Your task to perform on an android device: Empty the shopping cart on bestbuy.com. Add "duracell triple a" to the cart on bestbuy.com Image 0: 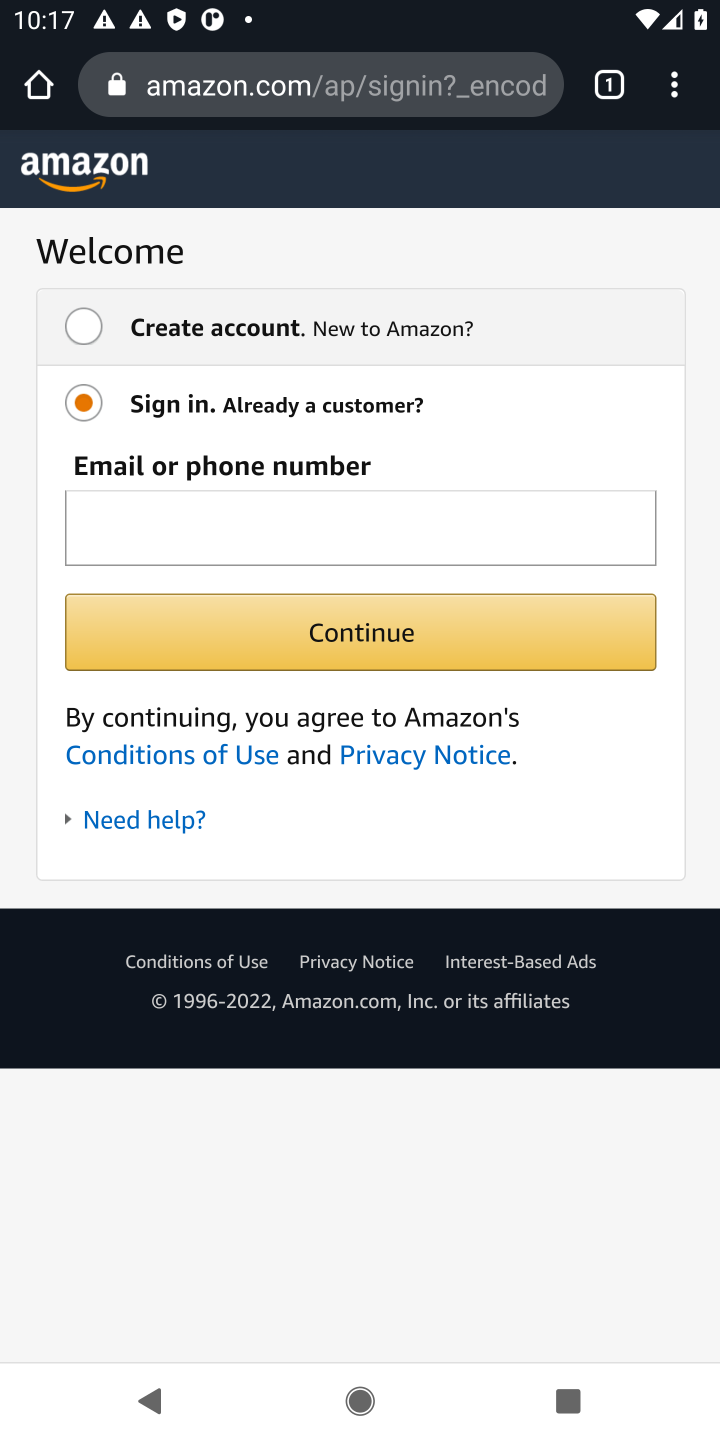
Step 0: click (302, 87)
Your task to perform on an android device: Empty the shopping cart on bestbuy.com. Add "duracell triple a" to the cart on bestbuy.com Image 1: 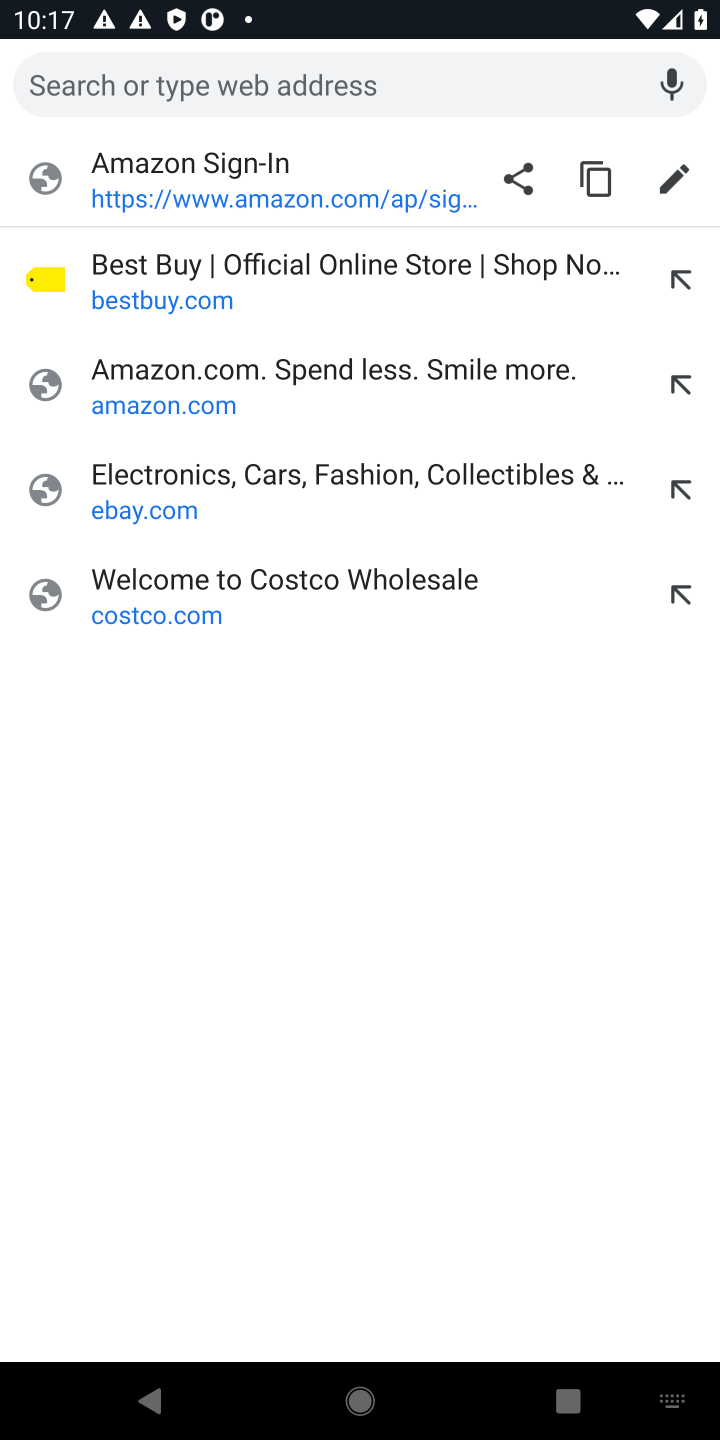
Step 1: click (145, 322)
Your task to perform on an android device: Empty the shopping cart on bestbuy.com. Add "duracell triple a" to the cart on bestbuy.com Image 2: 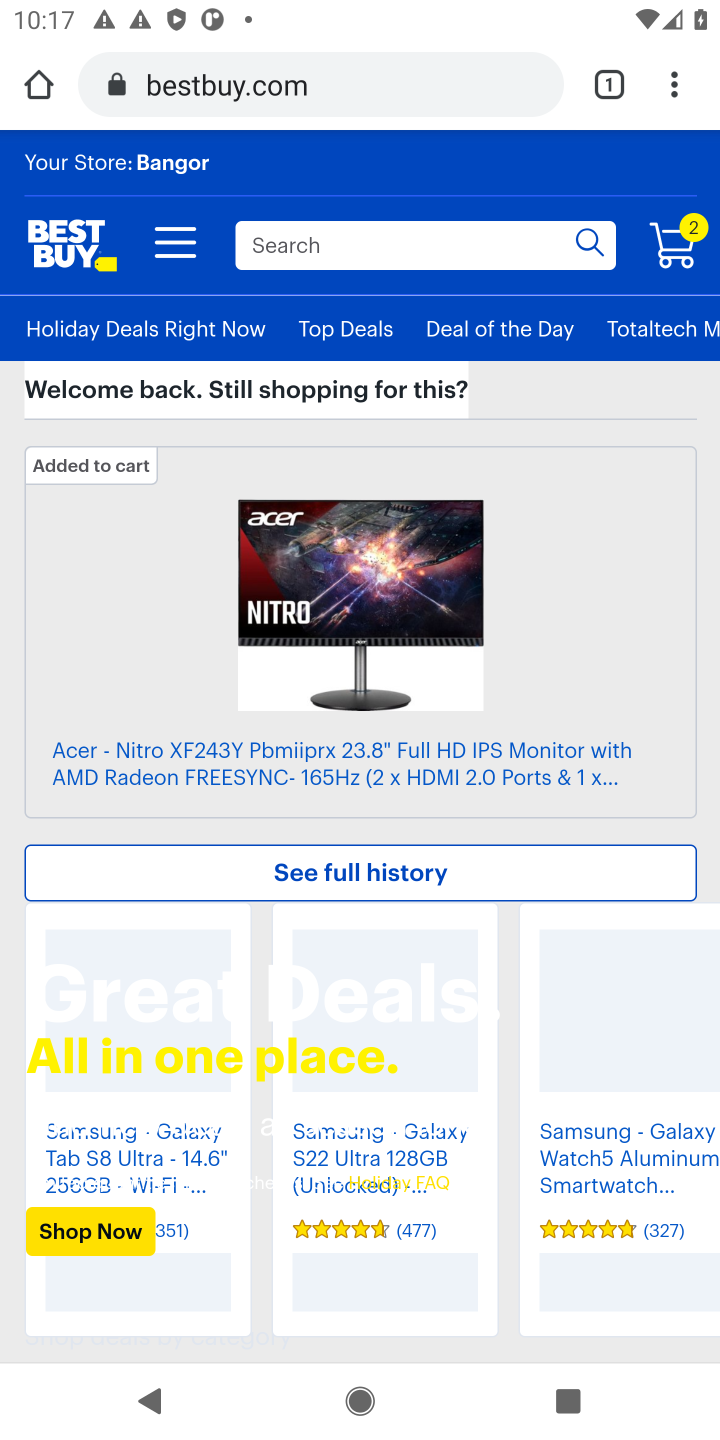
Step 2: click (670, 257)
Your task to perform on an android device: Empty the shopping cart on bestbuy.com. Add "duracell triple a" to the cart on bestbuy.com Image 3: 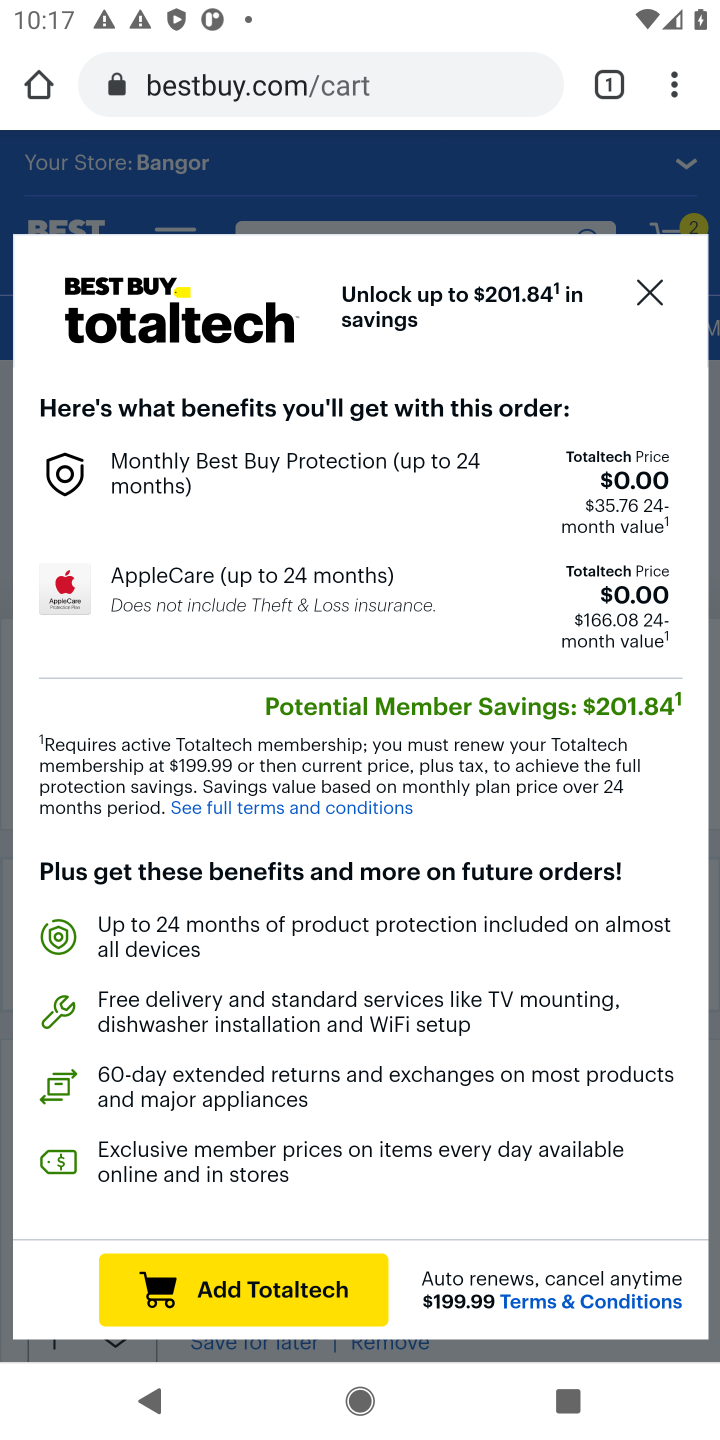
Step 3: drag from (266, 814) to (305, 630)
Your task to perform on an android device: Empty the shopping cart on bestbuy.com. Add "duracell triple a" to the cart on bestbuy.com Image 4: 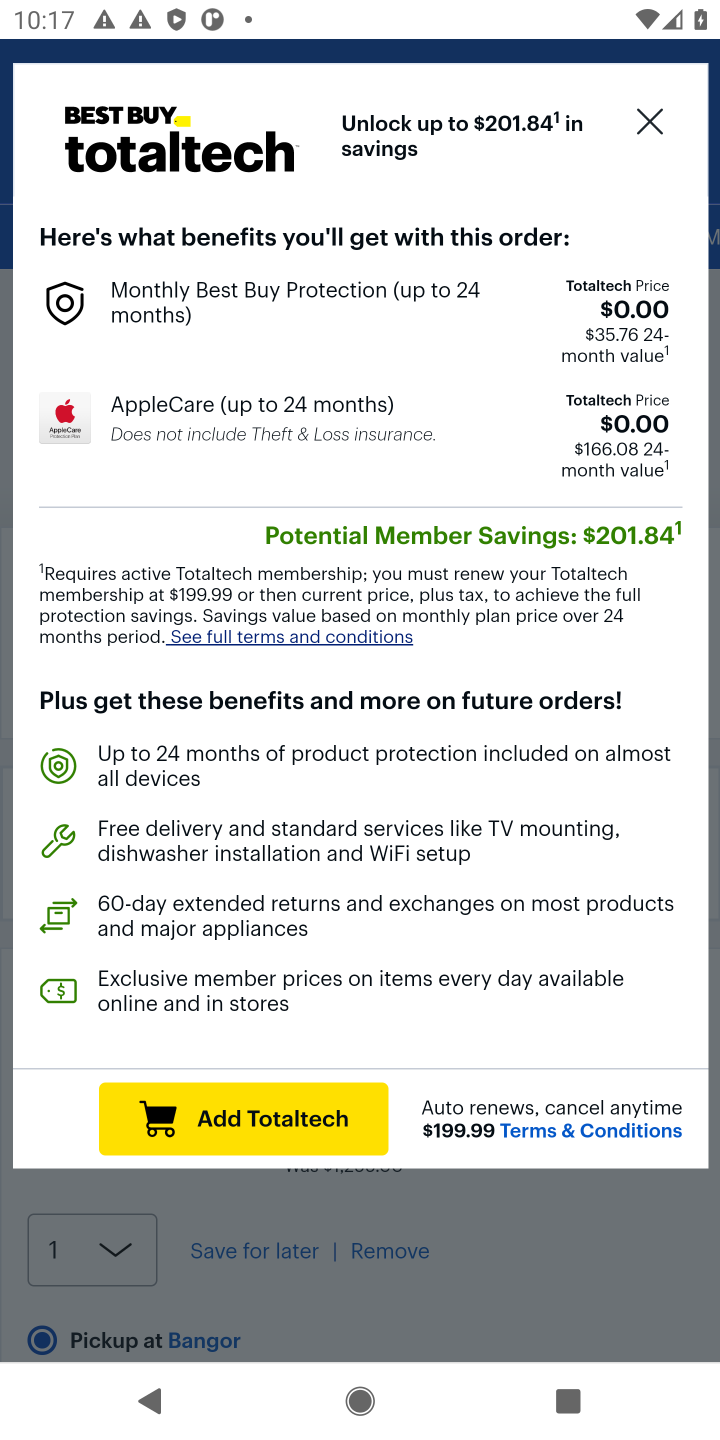
Step 4: click (647, 128)
Your task to perform on an android device: Empty the shopping cart on bestbuy.com. Add "duracell triple a" to the cart on bestbuy.com Image 5: 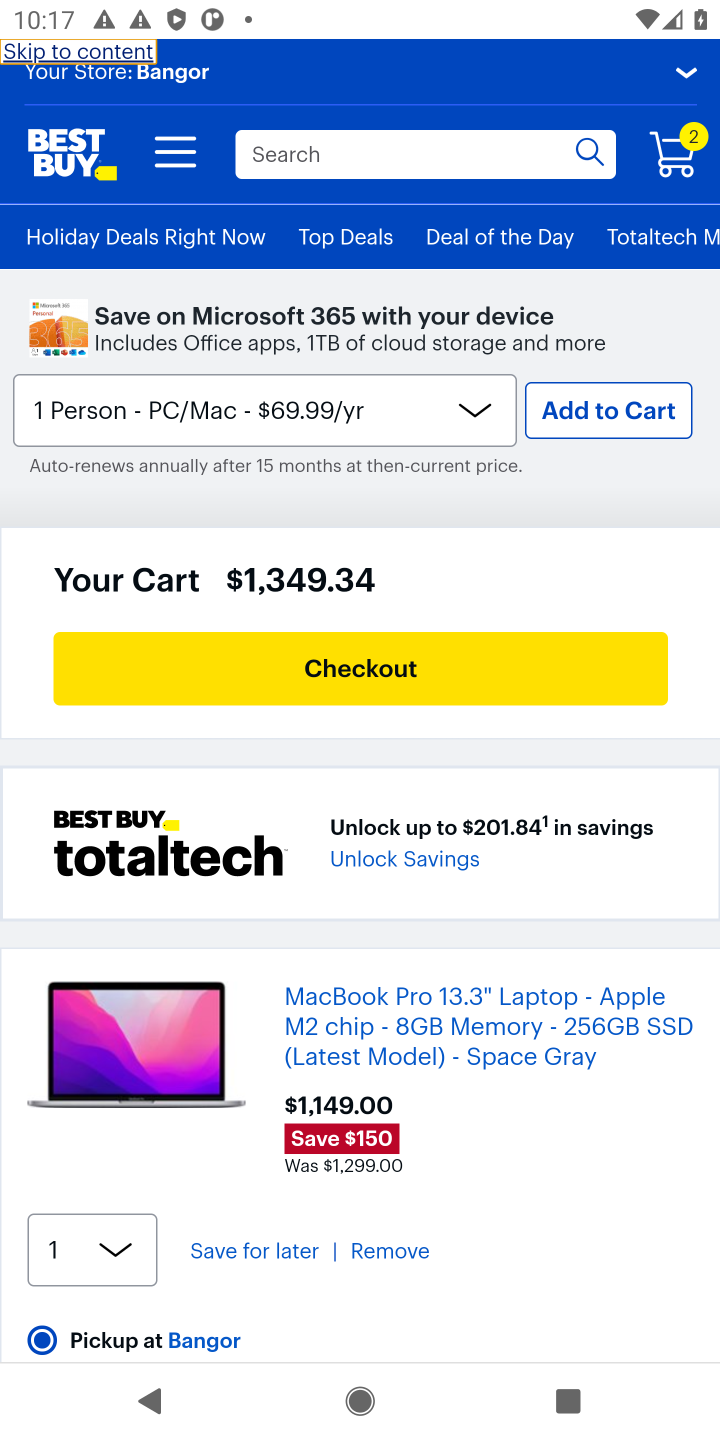
Step 5: drag from (403, 723) to (398, 381)
Your task to perform on an android device: Empty the shopping cart on bestbuy.com. Add "duracell triple a" to the cart on bestbuy.com Image 6: 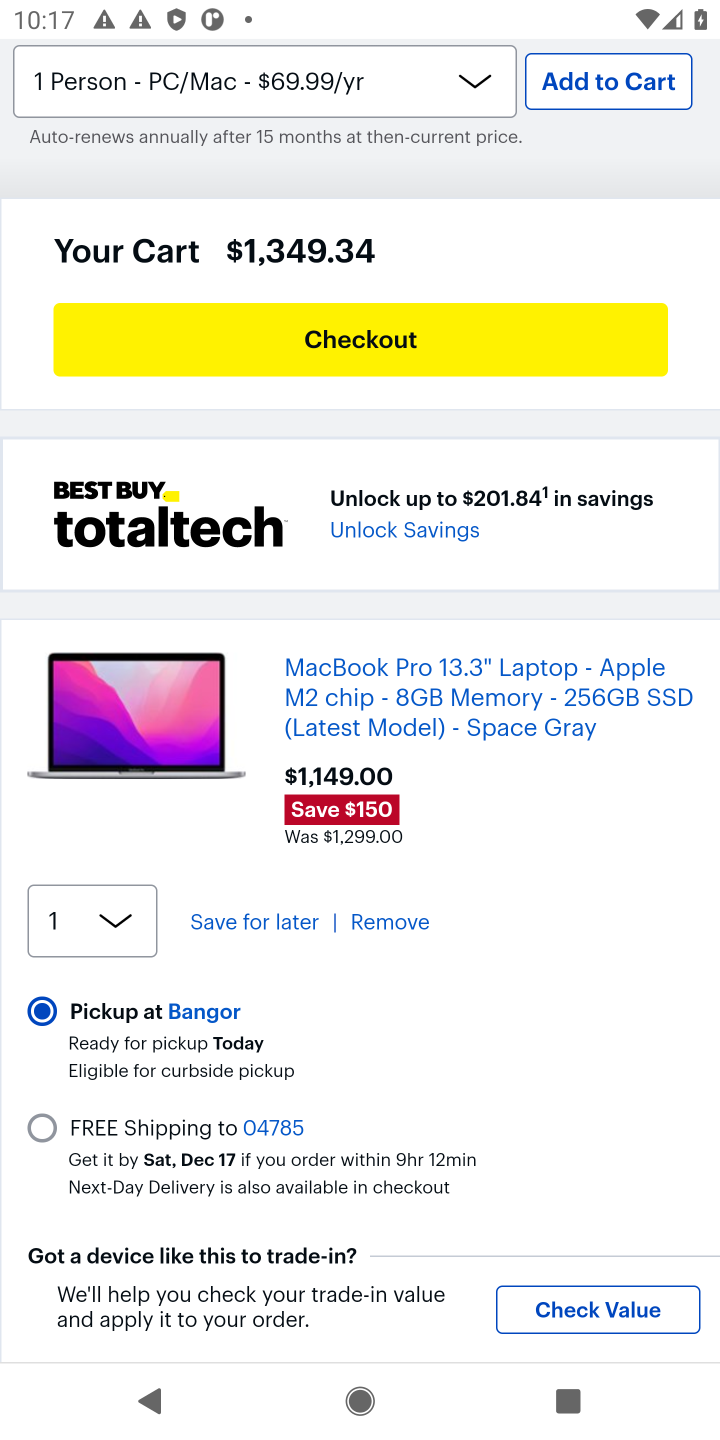
Step 6: click (399, 927)
Your task to perform on an android device: Empty the shopping cart on bestbuy.com. Add "duracell triple a" to the cart on bestbuy.com Image 7: 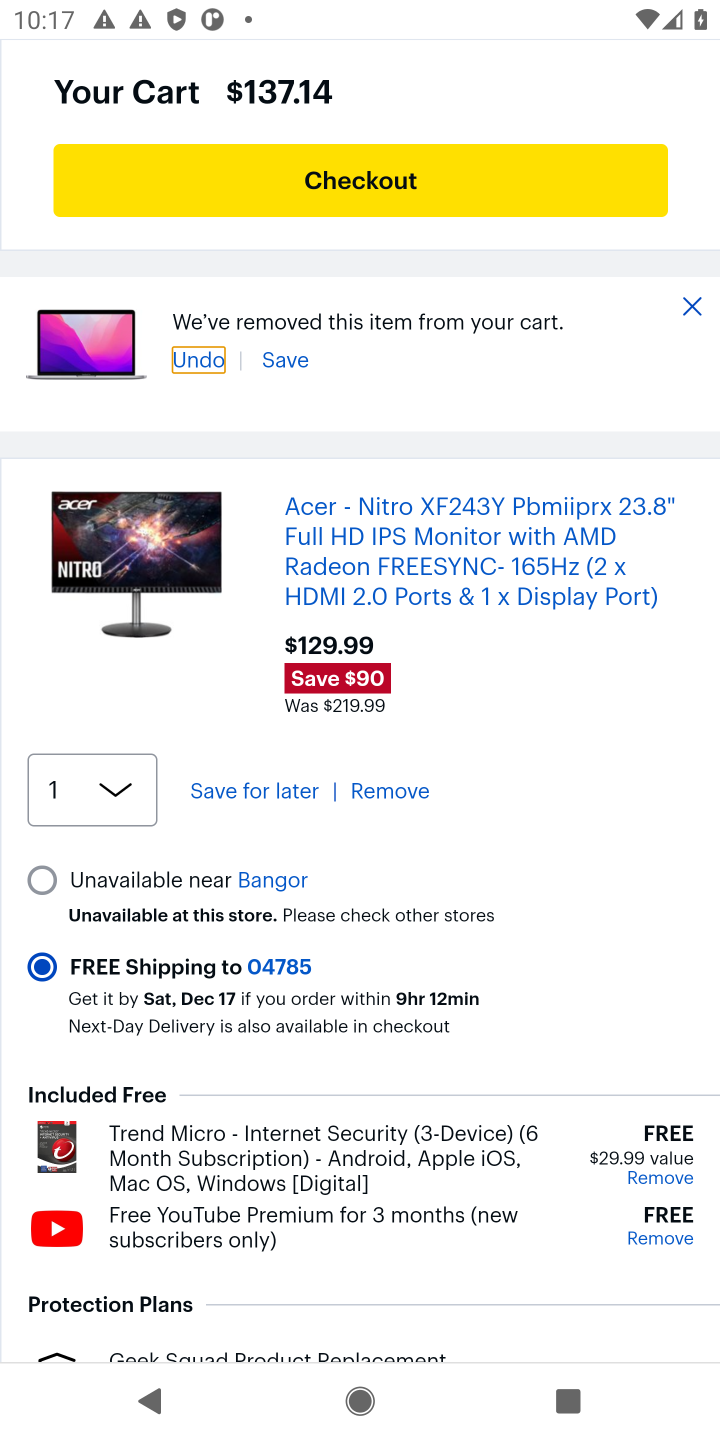
Step 7: click (387, 773)
Your task to perform on an android device: Empty the shopping cart on bestbuy.com. Add "duracell triple a" to the cart on bestbuy.com Image 8: 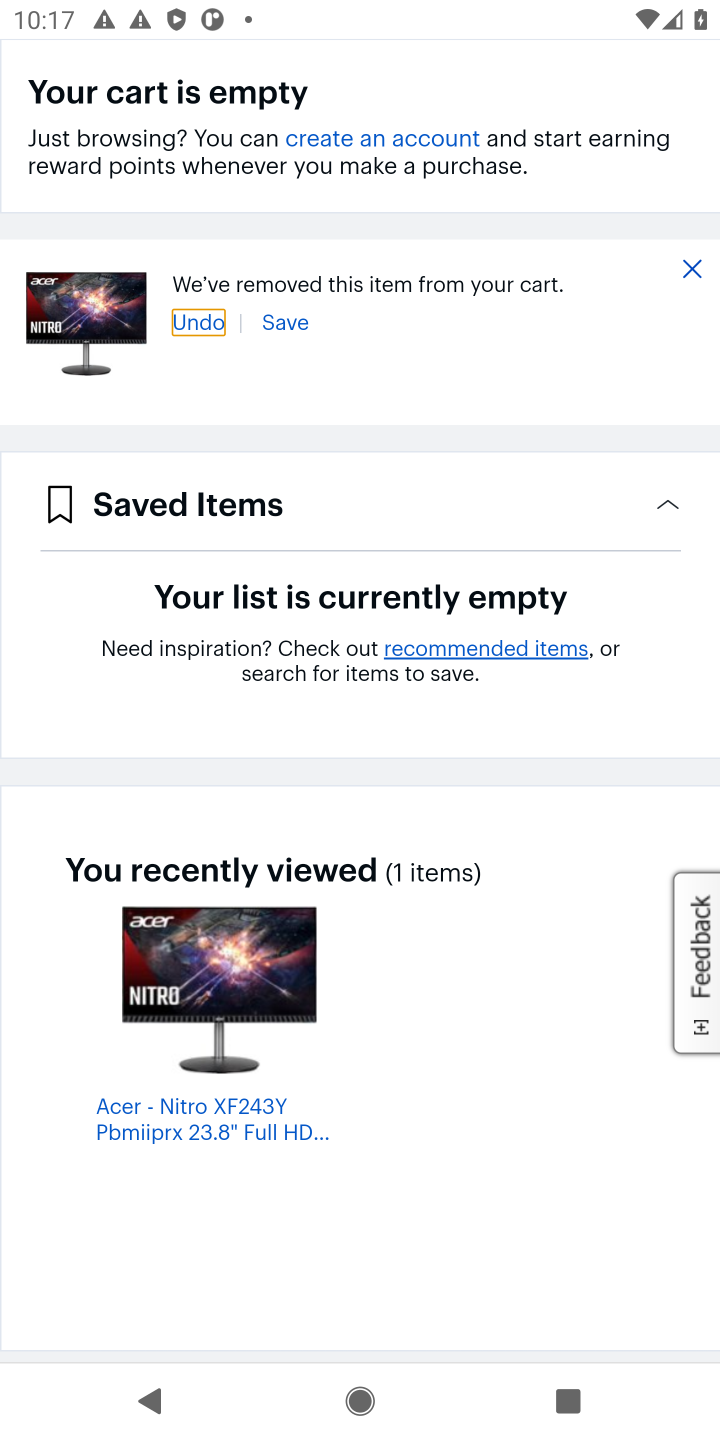
Step 8: drag from (560, 395) to (535, 911)
Your task to perform on an android device: Empty the shopping cart on bestbuy.com. Add "duracell triple a" to the cart on bestbuy.com Image 9: 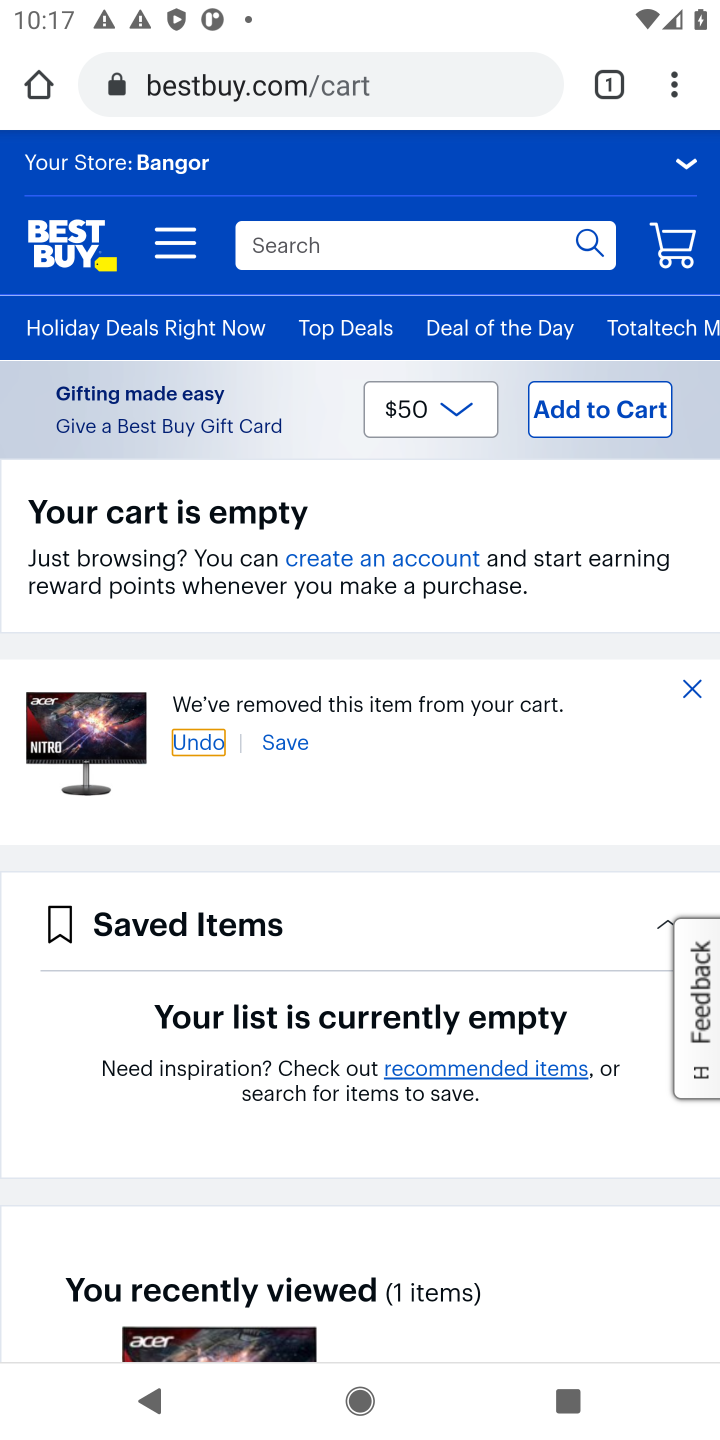
Step 9: click (266, 250)
Your task to perform on an android device: Empty the shopping cart on bestbuy.com. Add "duracell triple a" to the cart on bestbuy.com Image 10: 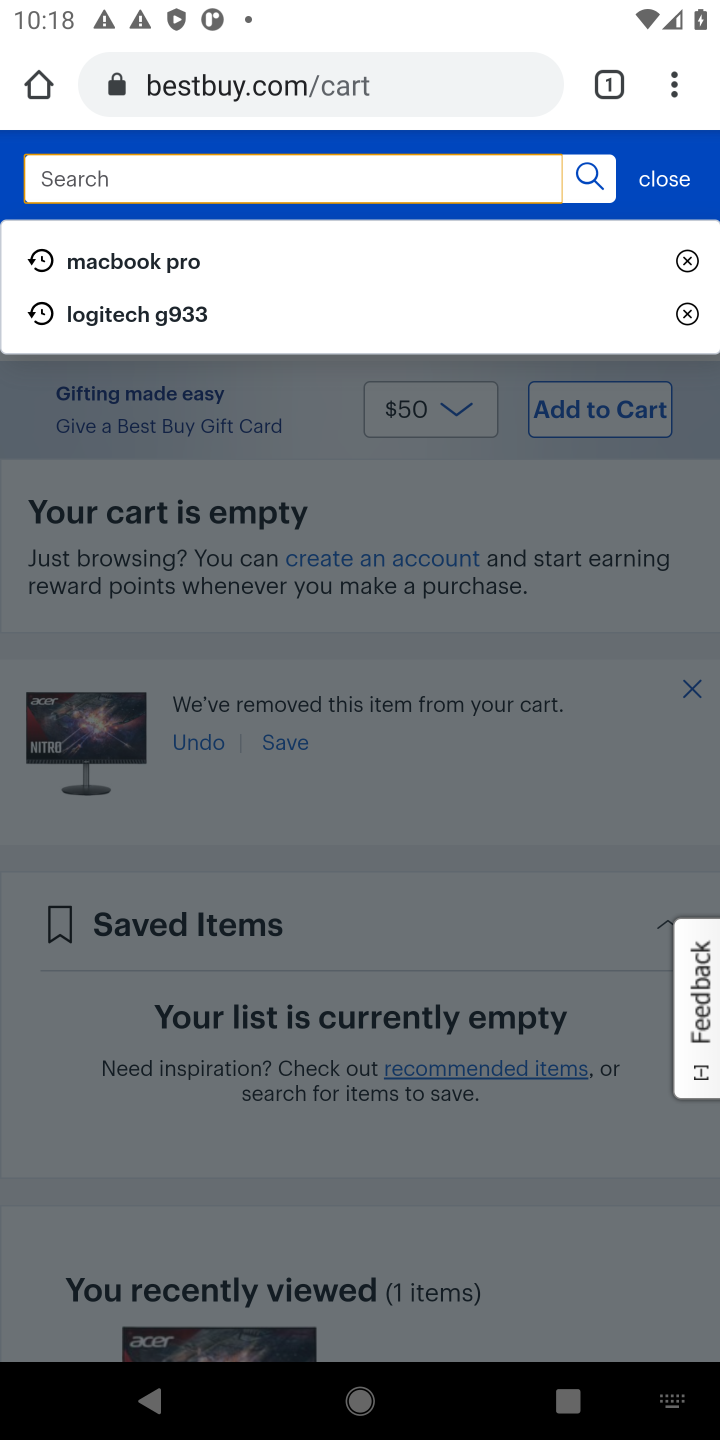
Step 10: type "duracell triple a"
Your task to perform on an android device: Empty the shopping cart on bestbuy.com. Add "duracell triple a" to the cart on bestbuy.com Image 11: 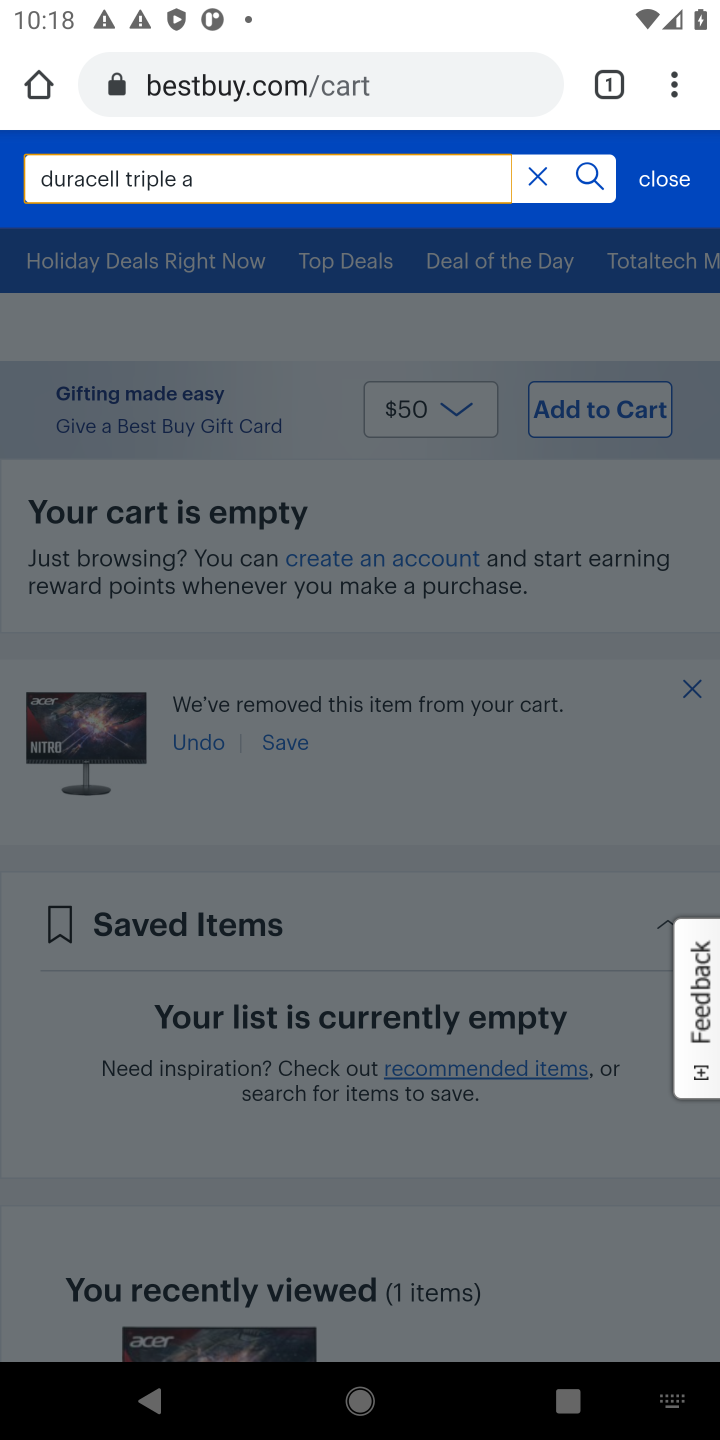
Step 11: click (594, 177)
Your task to perform on an android device: Empty the shopping cart on bestbuy.com. Add "duracell triple a" to the cart on bestbuy.com Image 12: 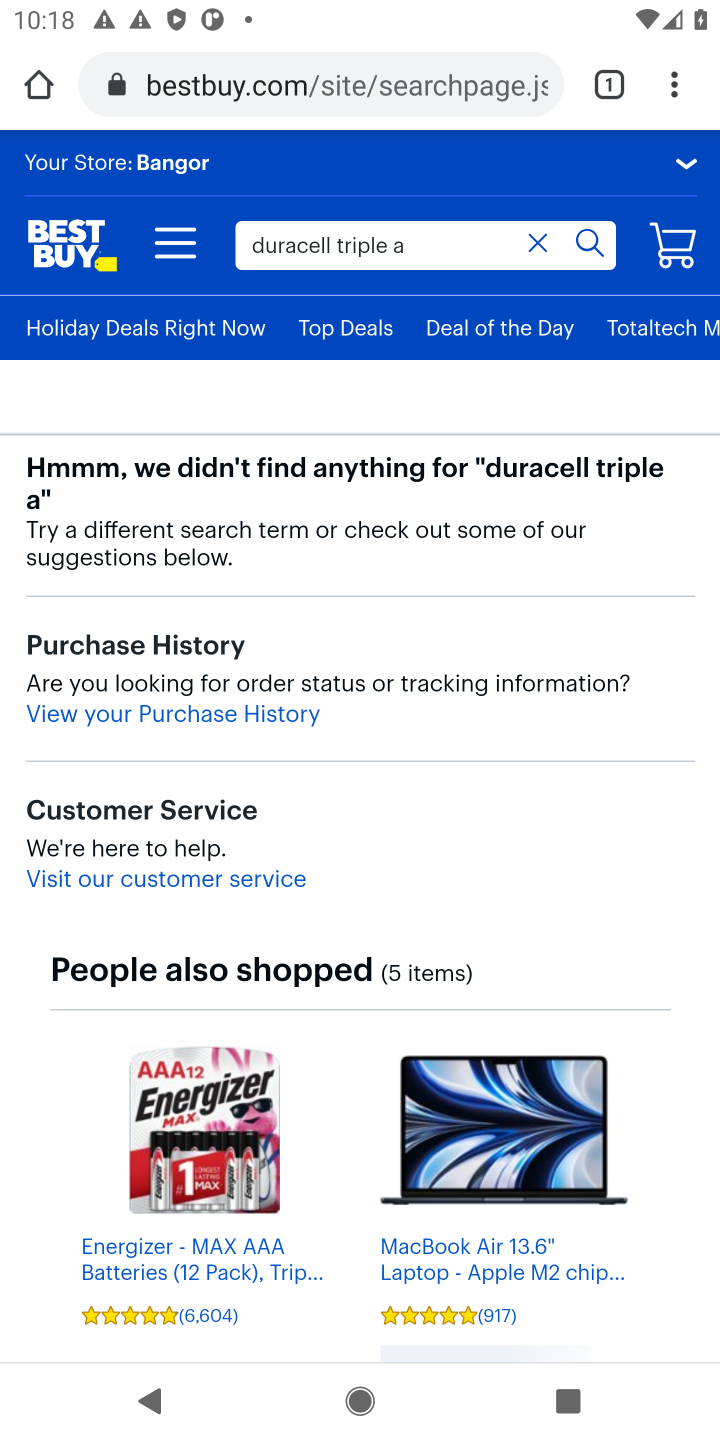
Step 12: task complete